Your task to perform on an android device: toggle priority inbox in the gmail app Image 0: 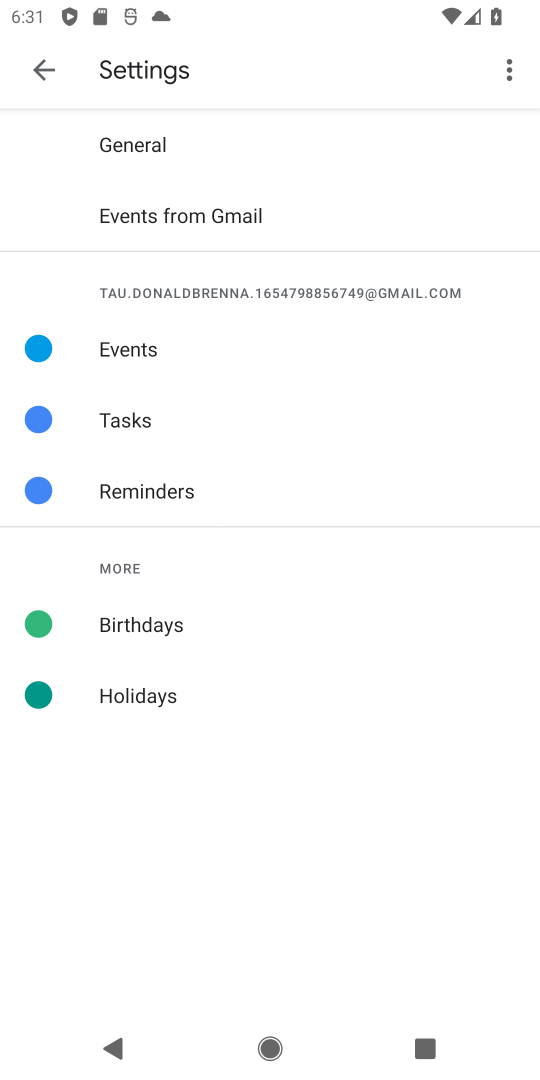
Step 0: press back button
Your task to perform on an android device: toggle priority inbox in the gmail app Image 1: 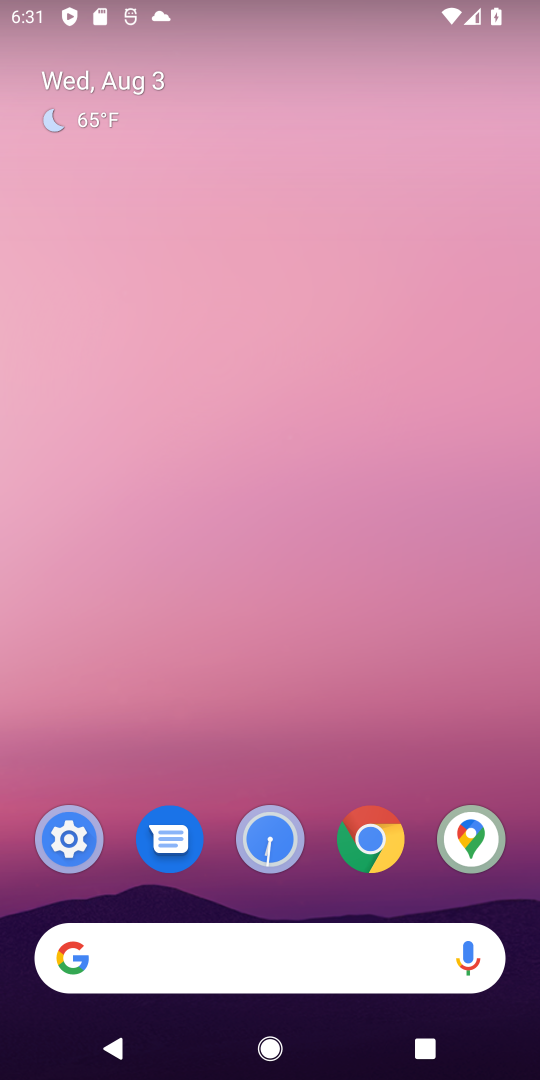
Step 1: drag from (200, 649) to (348, 1)
Your task to perform on an android device: toggle priority inbox in the gmail app Image 2: 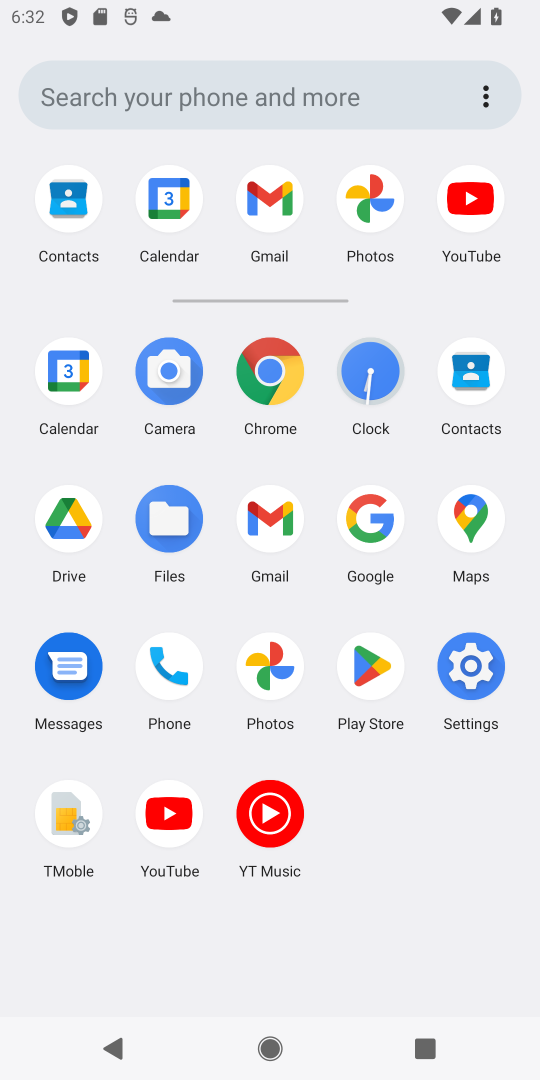
Step 2: click (265, 517)
Your task to perform on an android device: toggle priority inbox in the gmail app Image 3: 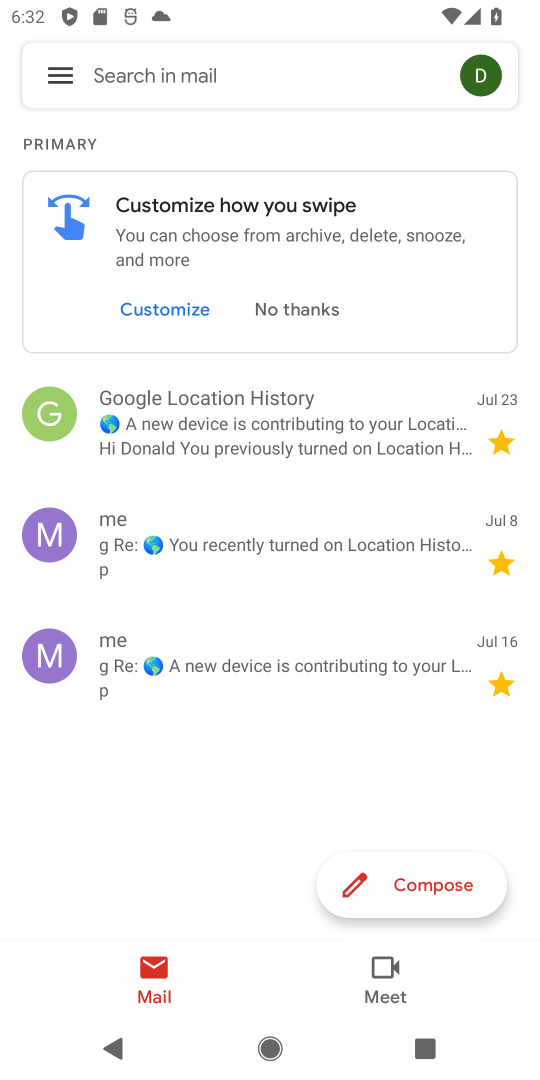
Step 3: click (61, 68)
Your task to perform on an android device: toggle priority inbox in the gmail app Image 4: 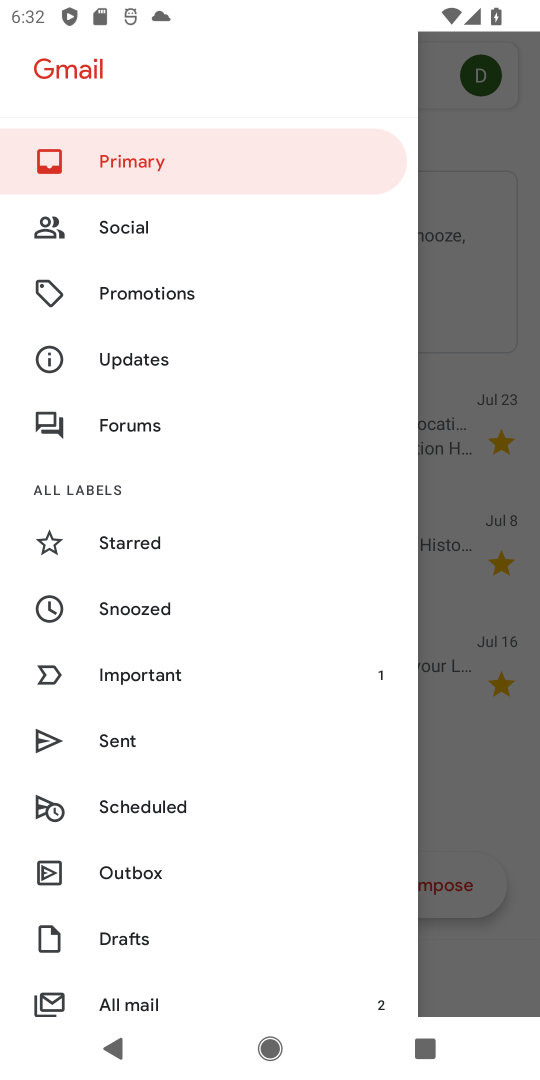
Step 4: drag from (205, 940) to (304, 199)
Your task to perform on an android device: toggle priority inbox in the gmail app Image 5: 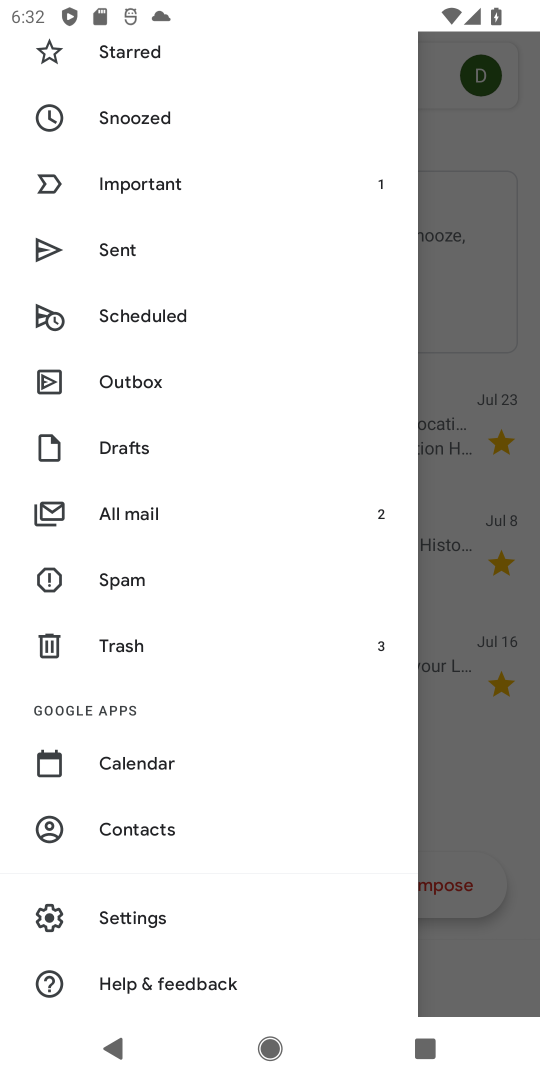
Step 5: click (102, 919)
Your task to perform on an android device: toggle priority inbox in the gmail app Image 6: 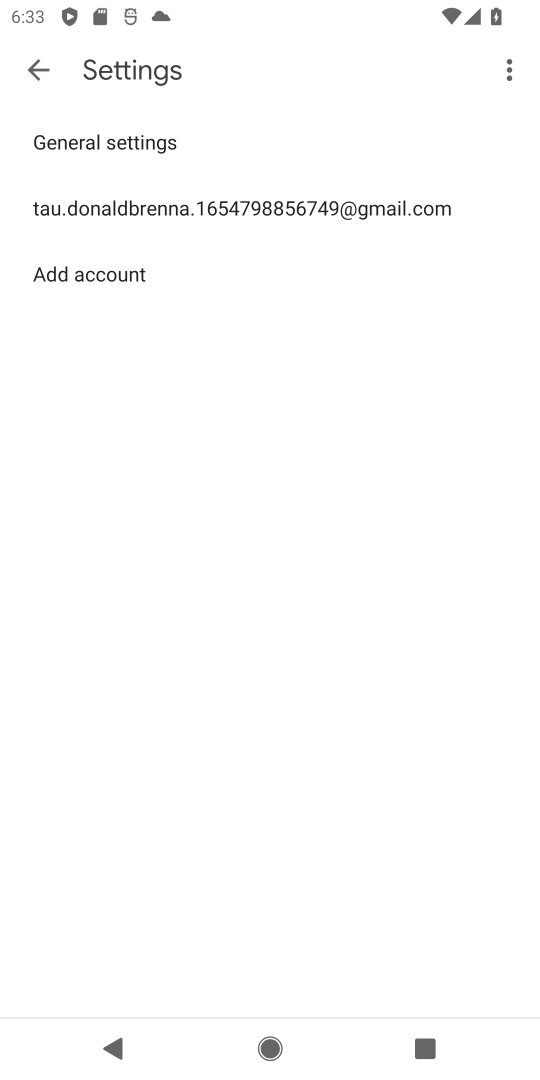
Step 6: click (199, 217)
Your task to perform on an android device: toggle priority inbox in the gmail app Image 7: 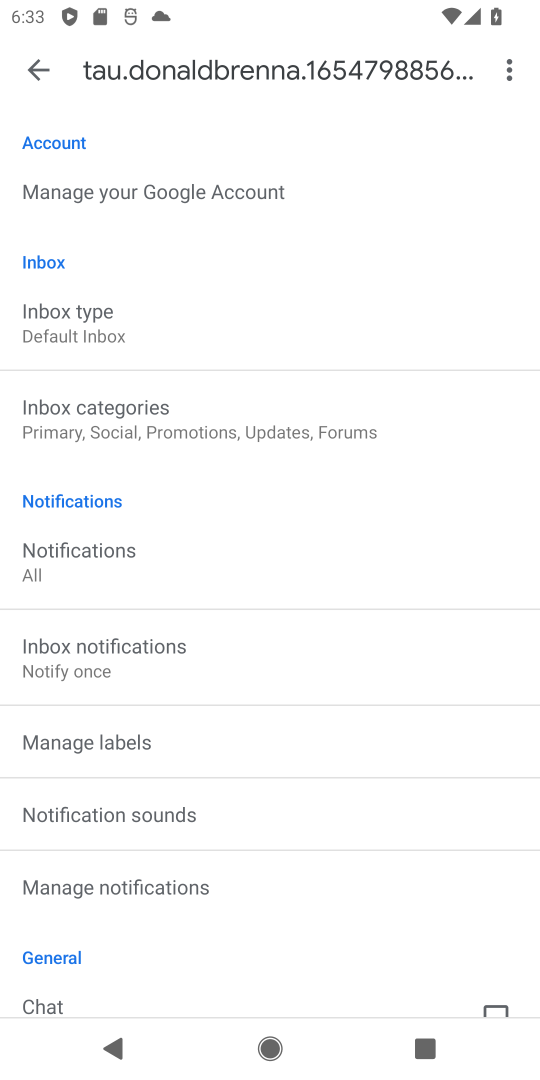
Step 7: click (174, 339)
Your task to perform on an android device: toggle priority inbox in the gmail app Image 8: 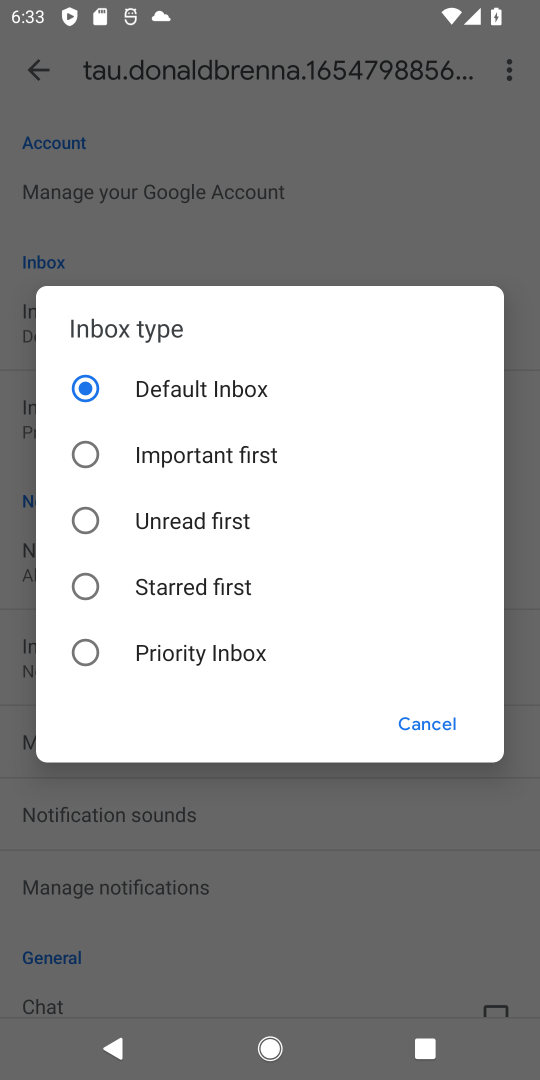
Step 8: click (113, 652)
Your task to perform on an android device: toggle priority inbox in the gmail app Image 9: 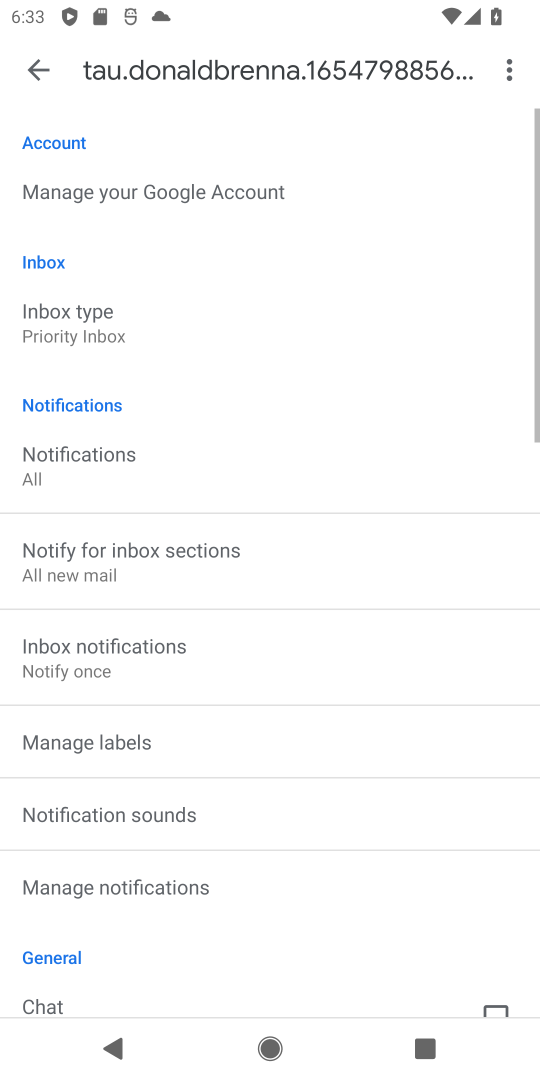
Step 9: task complete